Your task to perform on an android device: add a contact Image 0: 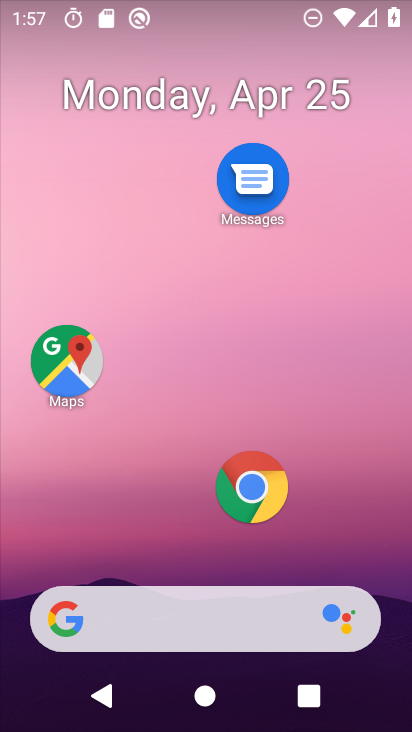
Step 0: drag from (382, 566) to (411, 28)
Your task to perform on an android device: add a contact Image 1: 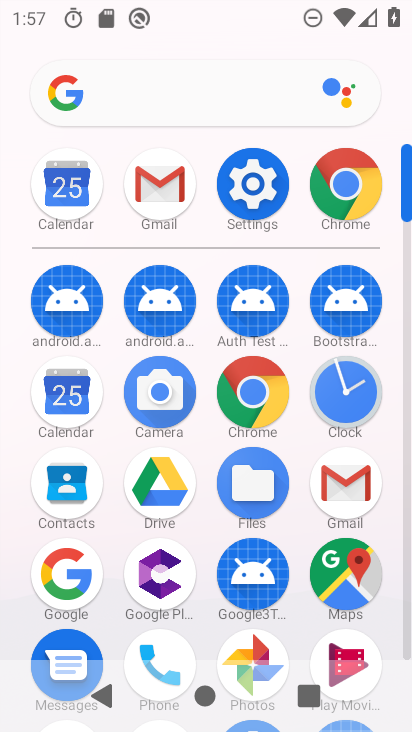
Step 1: drag from (273, 474) to (321, 109)
Your task to perform on an android device: add a contact Image 2: 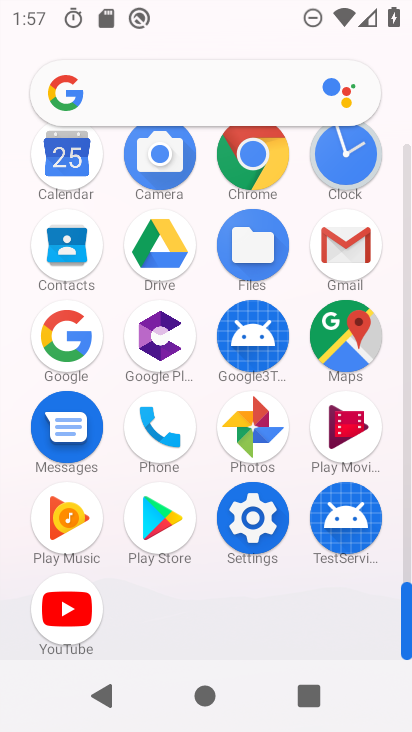
Step 2: click (54, 251)
Your task to perform on an android device: add a contact Image 3: 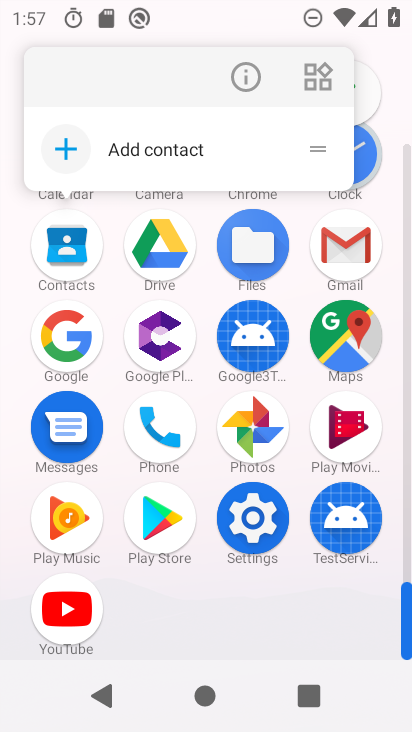
Step 3: click (74, 245)
Your task to perform on an android device: add a contact Image 4: 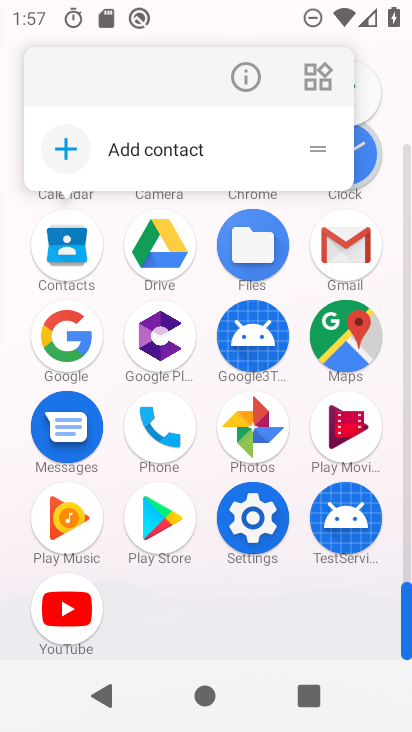
Step 4: click (75, 245)
Your task to perform on an android device: add a contact Image 5: 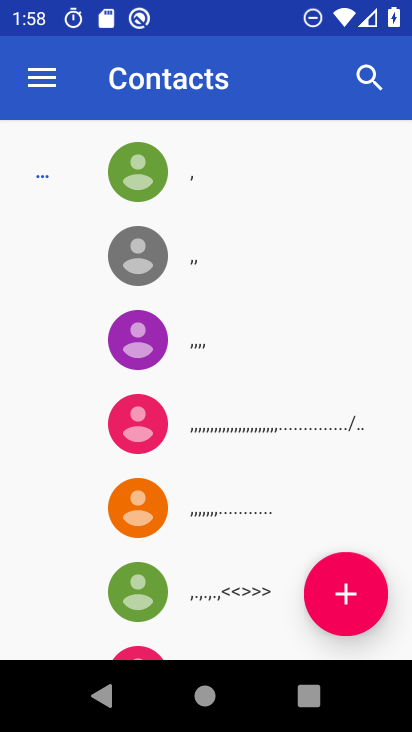
Step 5: click (340, 590)
Your task to perform on an android device: add a contact Image 6: 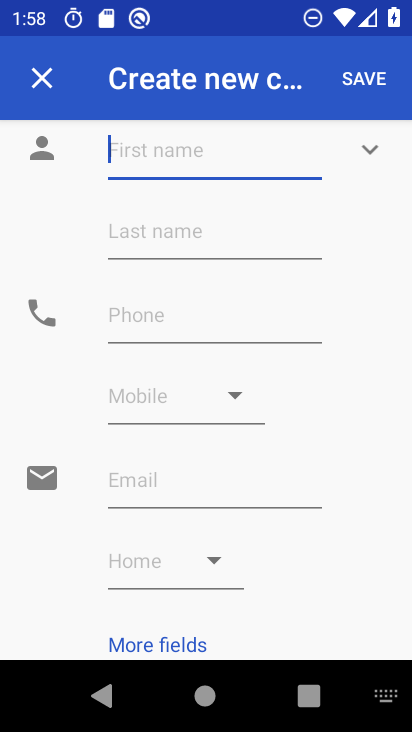
Step 6: type "fgdfhdfhfd"
Your task to perform on an android device: add a contact Image 7: 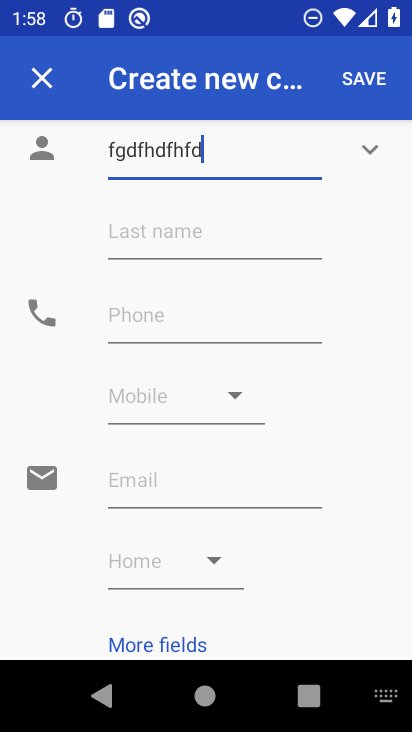
Step 7: click (169, 327)
Your task to perform on an android device: add a contact Image 8: 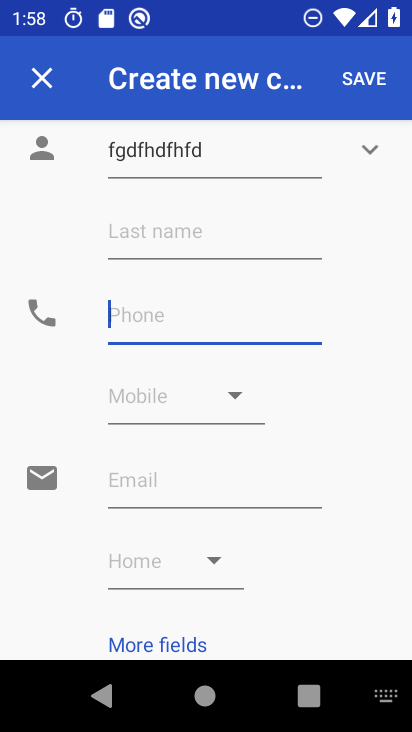
Step 8: type "4546467577"
Your task to perform on an android device: add a contact Image 9: 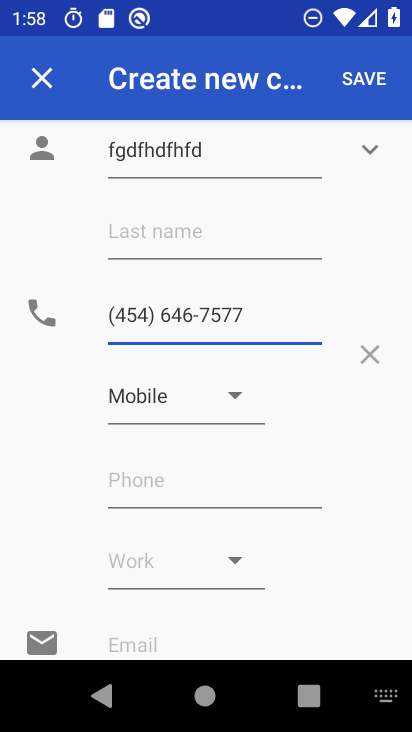
Step 9: click (369, 77)
Your task to perform on an android device: add a contact Image 10: 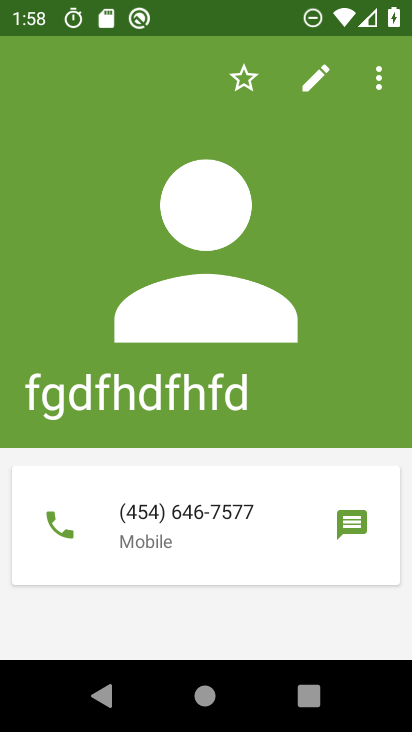
Step 10: task complete